Your task to perform on an android device: open device folders in google photos Image 0: 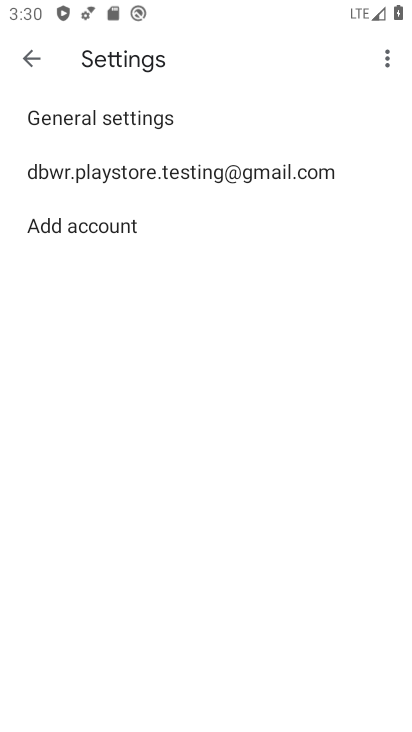
Step 0: press home button
Your task to perform on an android device: open device folders in google photos Image 1: 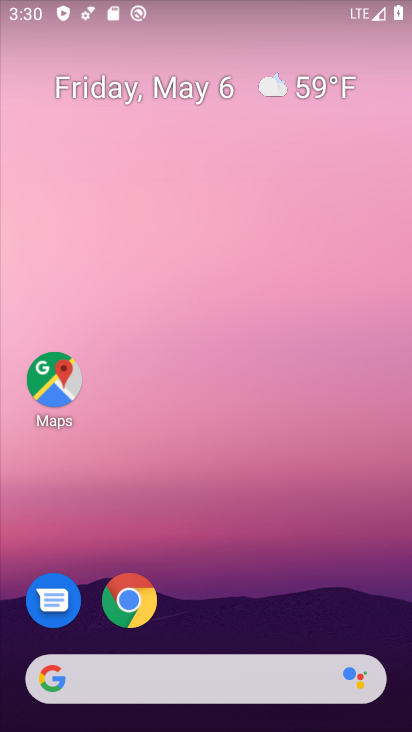
Step 1: drag from (218, 620) to (281, 121)
Your task to perform on an android device: open device folders in google photos Image 2: 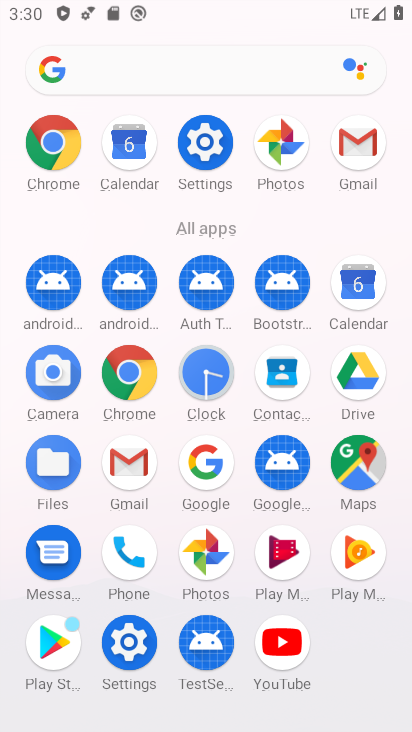
Step 2: click (202, 564)
Your task to perform on an android device: open device folders in google photos Image 3: 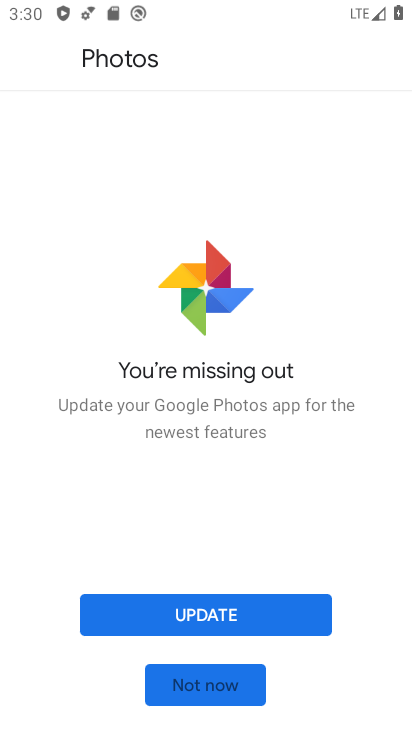
Step 3: click (220, 689)
Your task to perform on an android device: open device folders in google photos Image 4: 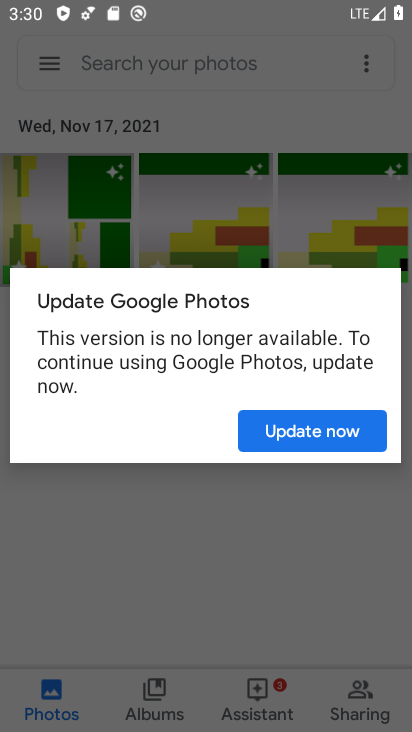
Step 4: click (300, 431)
Your task to perform on an android device: open device folders in google photos Image 5: 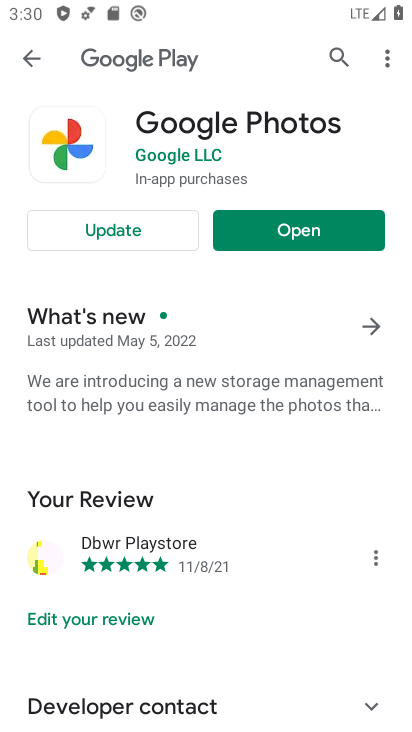
Step 5: click (281, 229)
Your task to perform on an android device: open device folders in google photos Image 6: 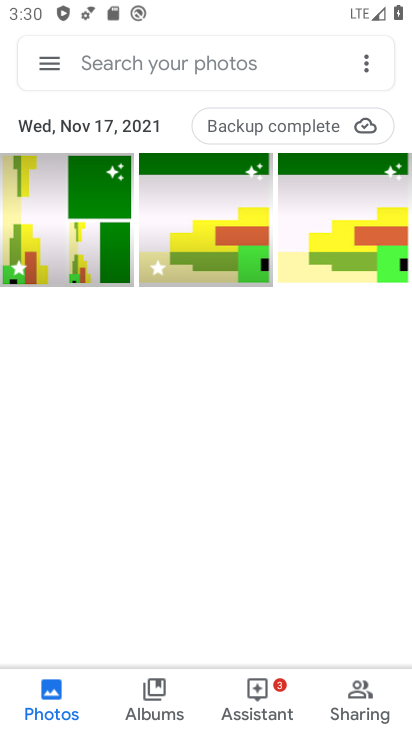
Step 6: click (42, 56)
Your task to perform on an android device: open device folders in google photos Image 7: 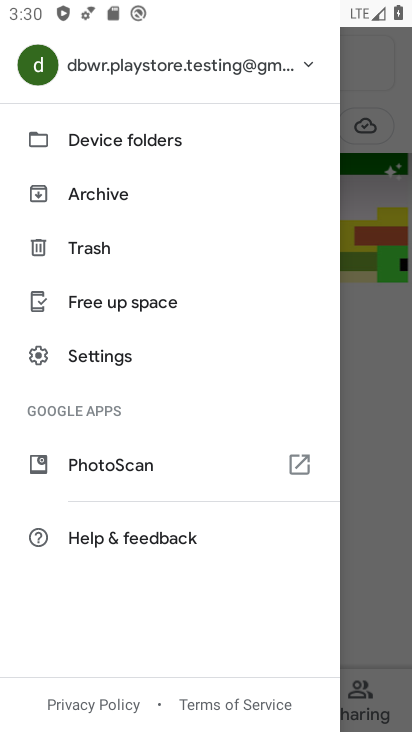
Step 7: click (118, 149)
Your task to perform on an android device: open device folders in google photos Image 8: 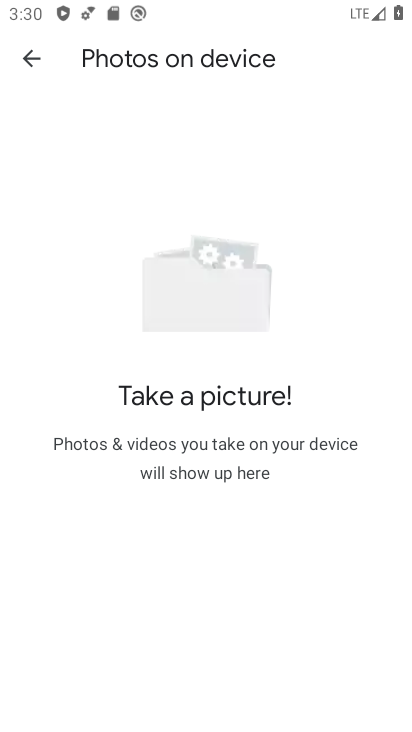
Step 8: task complete